Your task to perform on an android device: Search for sushi restaurants on Maps Image 0: 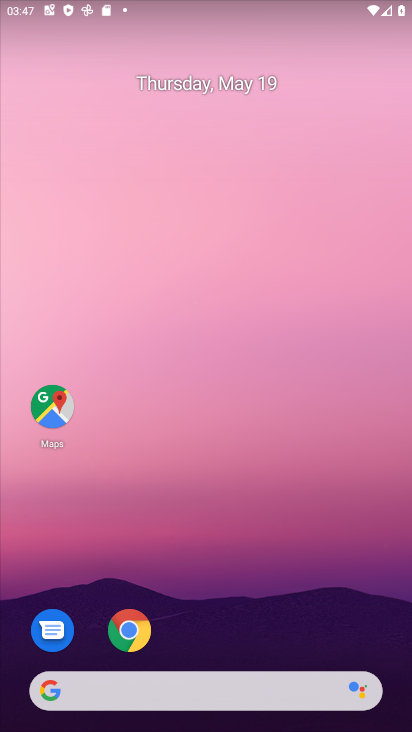
Step 0: click (51, 405)
Your task to perform on an android device: Search for sushi restaurants on Maps Image 1: 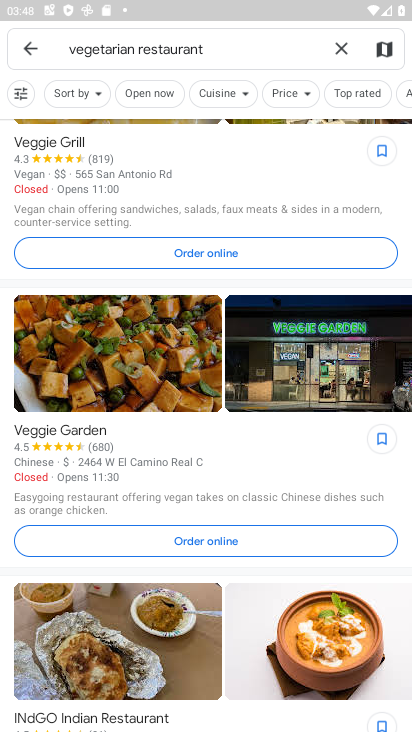
Step 1: click (339, 49)
Your task to perform on an android device: Search for sushi restaurants on Maps Image 2: 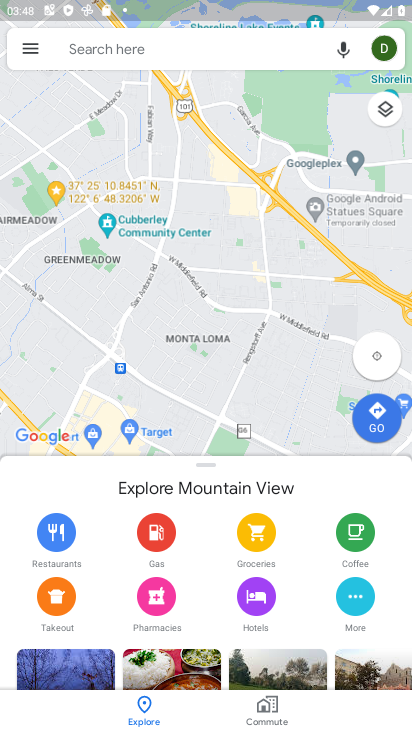
Step 2: click (119, 44)
Your task to perform on an android device: Search for sushi restaurants on Maps Image 3: 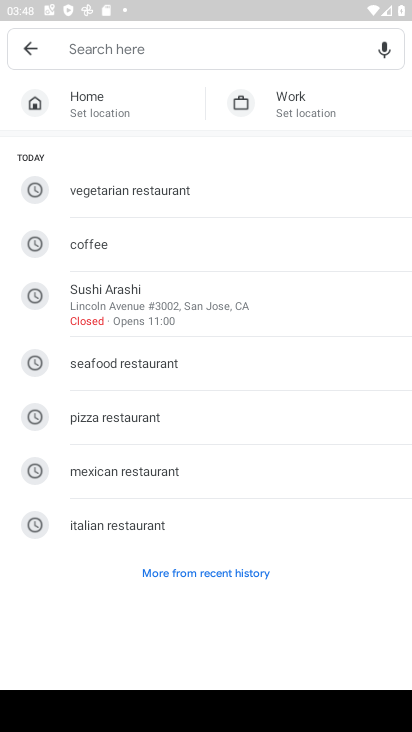
Step 3: type "sushi restaurants"
Your task to perform on an android device: Search for sushi restaurants on Maps Image 4: 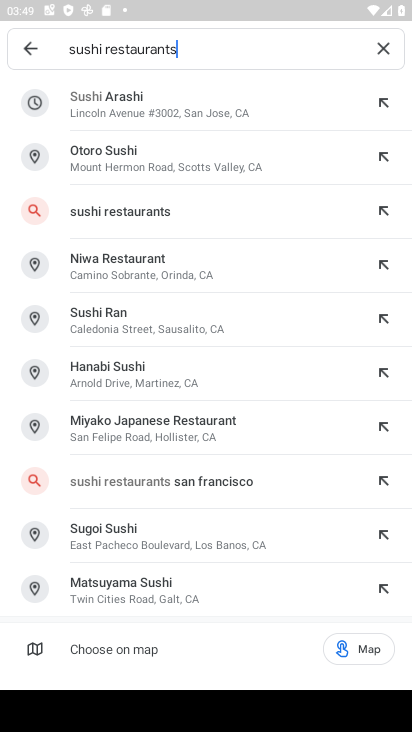
Step 4: click (107, 209)
Your task to perform on an android device: Search for sushi restaurants on Maps Image 5: 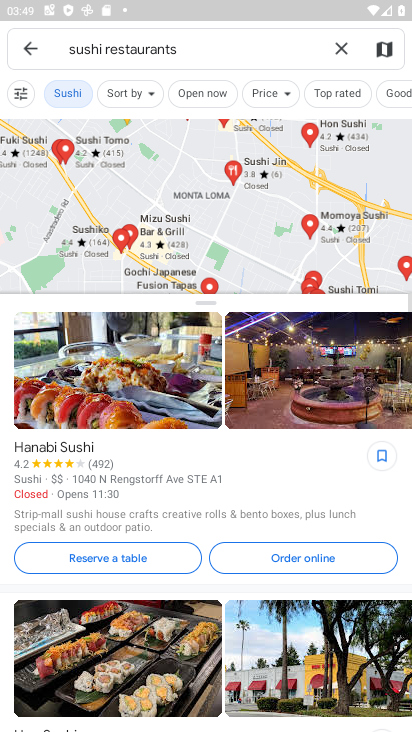
Step 5: task complete